Your task to perform on an android device: Go to network settings Image 0: 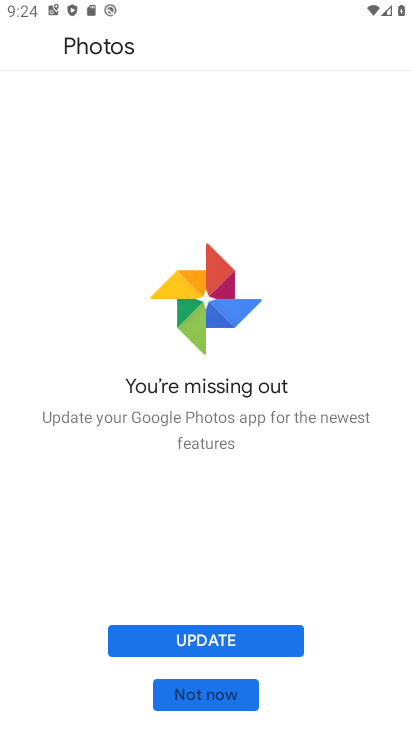
Step 0: press home button
Your task to perform on an android device: Go to network settings Image 1: 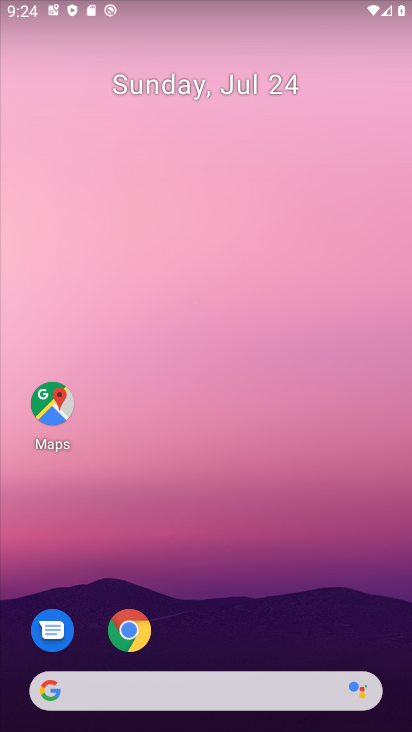
Step 1: drag from (212, 628) to (211, 38)
Your task to perform on an android device: Go to network settings Image 2: 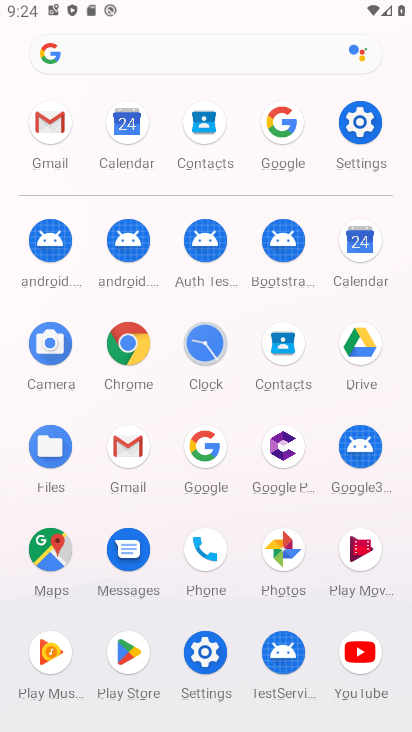
Step 2: click (371, 107)
Your task to perform on an android device: Go to network settings Image 3: 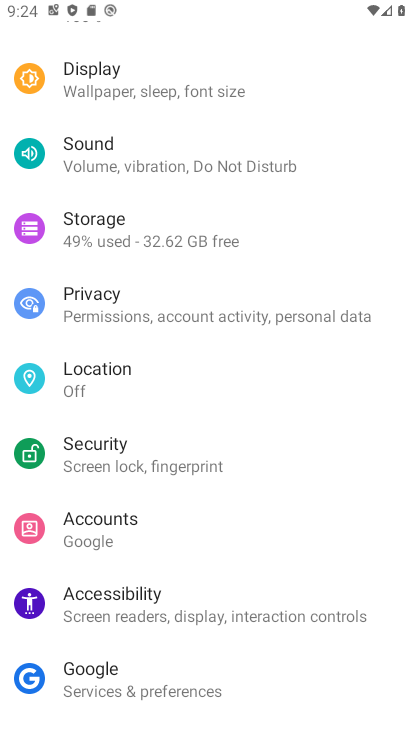
Step 3: click (249, 495)
Your task to perform on an android device: Go to network settings Image 4: 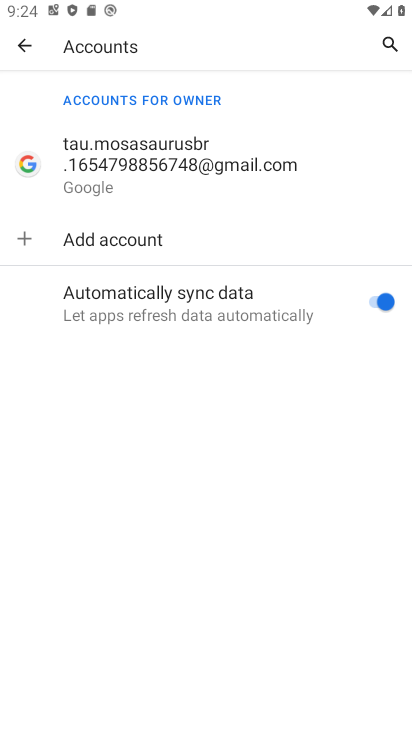
Step 4: drag from (161, 123) to (174, 276)
Your task to perform on an android device: Go to network settings Image 5: 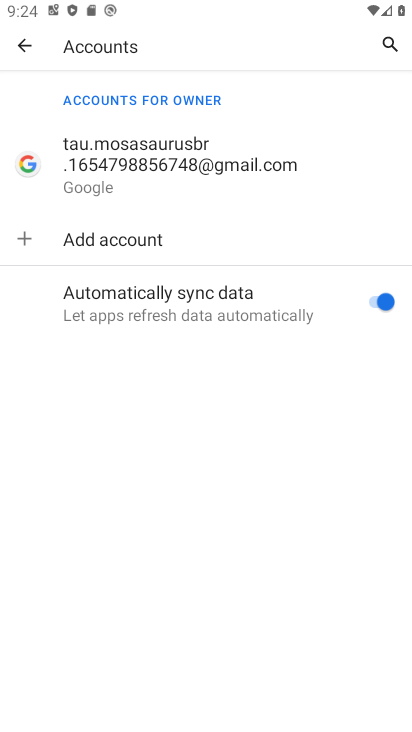
Step 5: click (25, 38)
Your task to perform on an android device: Go to network settings Image 6: 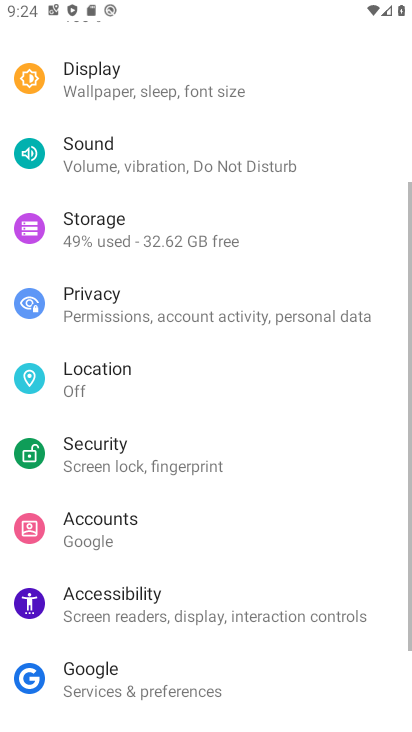
Step 6: drag from (206, 169) to (207, 527)
Your task to perform on an android device: Go to network settings Image 7: 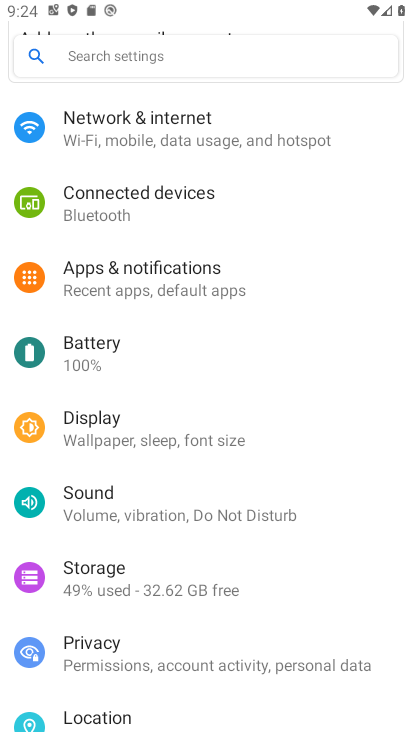
Step 7: click (191, 142)
Your task to perform on an android device: Go to network settings Image 8: 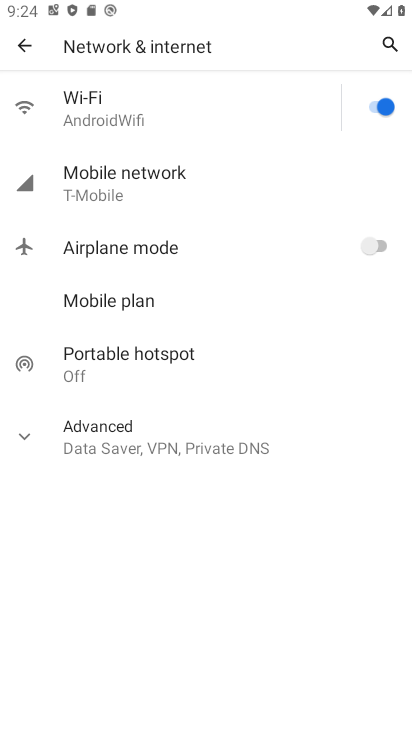
Step 8: task complete